Your task to perform on an android device: toggle data saver in the chrome app Image 0: 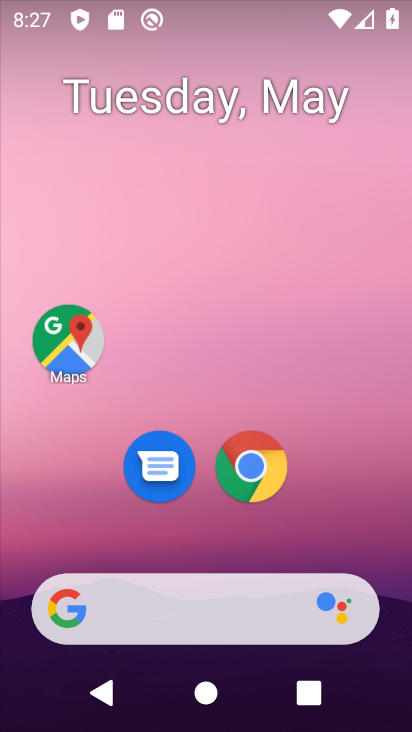
Step 0: press home button
Your task to perform on an android device: toggle data saver in the chrome app Image 1: 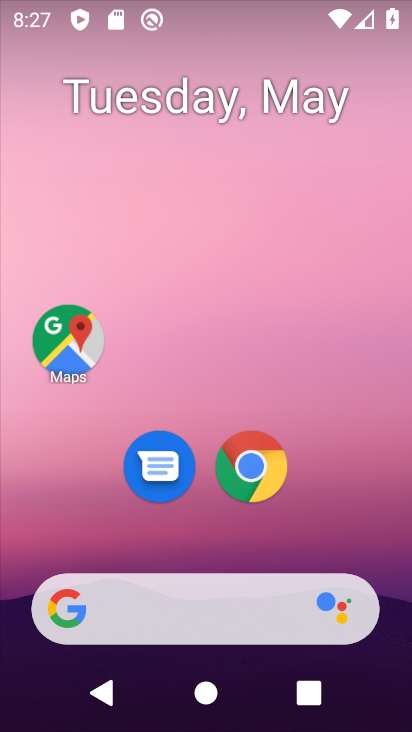
Step 1: click (251, 462)
Your task to perform on an android device: toggle data saver in the chrome app Image 2: 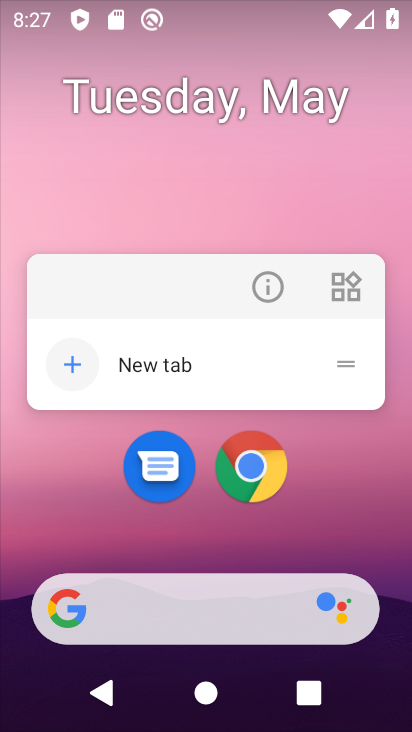
Step 2: click (254, 474)
Your task to perform on an android device: toggle data saver in the chrome app Image 3: 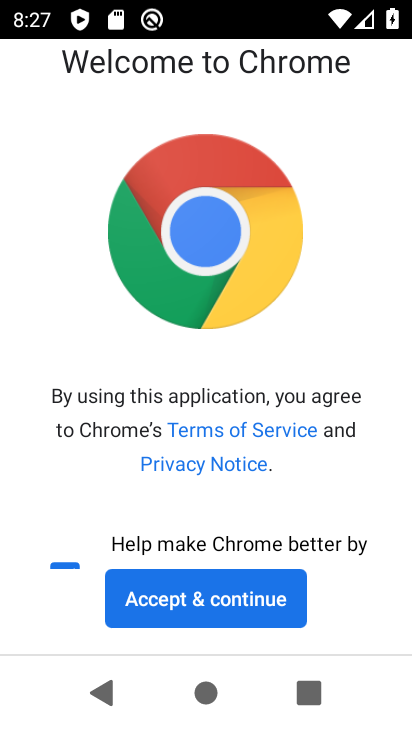
Step 3: click (211, 580)
Your task to perform on an android device: toggle data saver in the chrome app Image 4: 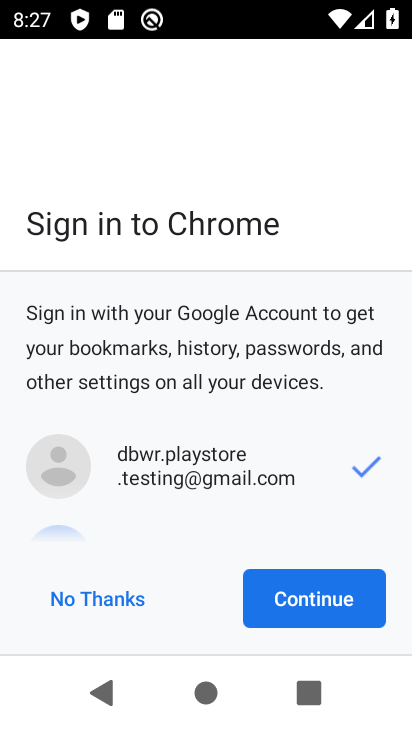
Step 4: click (317, 595)
Your task to perform on an android device: toggle data saver in the chrome app Image 5: 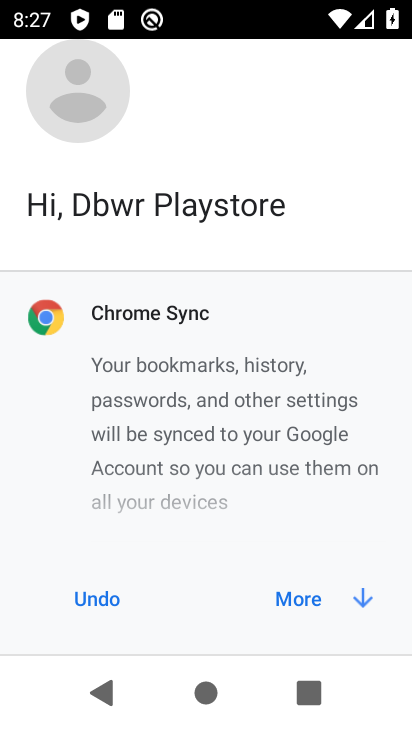
Step 5: click (318, 595)
Your task to perform on an android device: toggle data saver in the chrome app Image 6: 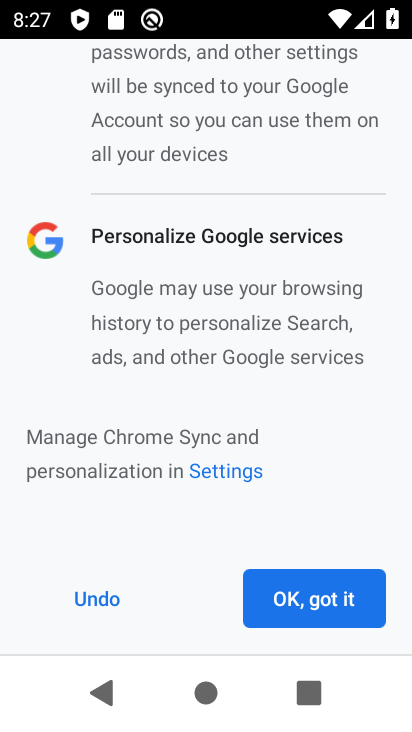
Step 6: click (318, 595)
Your task to perform on an android device: toggle data saver in the chrome app Image 7: 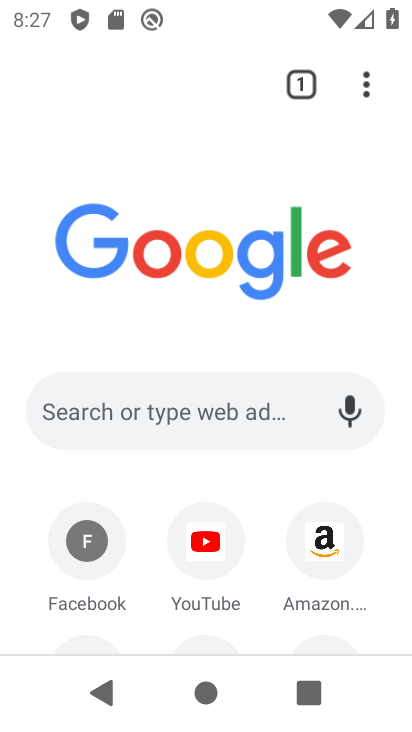
Step 7: click (365, 82)
Your task to perform on an android device: toggle data saver in the chrome app Image 8: 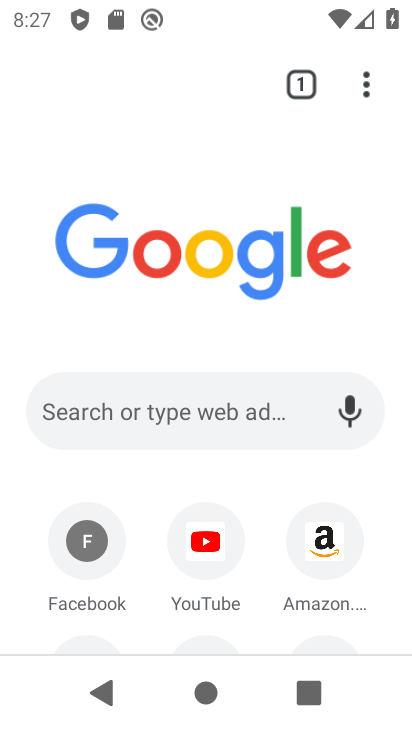
Step 8: click (365, 81)
Your task to perform on an android device: toggle data saver in the chrome app Image 9: 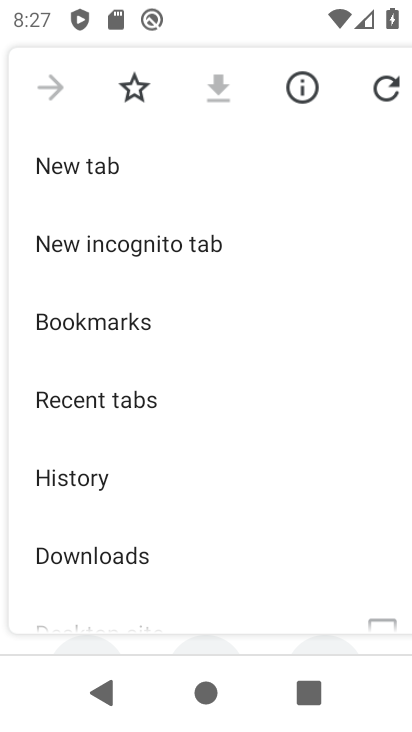
Step 9: drag from (187, 569) to (208, 89)
Your task to perform on an android device: toggle data saver in the chrome app Image 10: 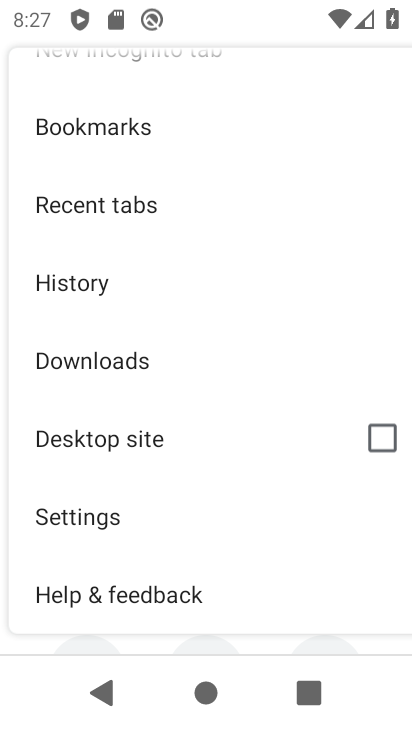
Step 10: click (133, 514)
Your task to perform on an android device: toggle data saver in the chrome app Image 11: 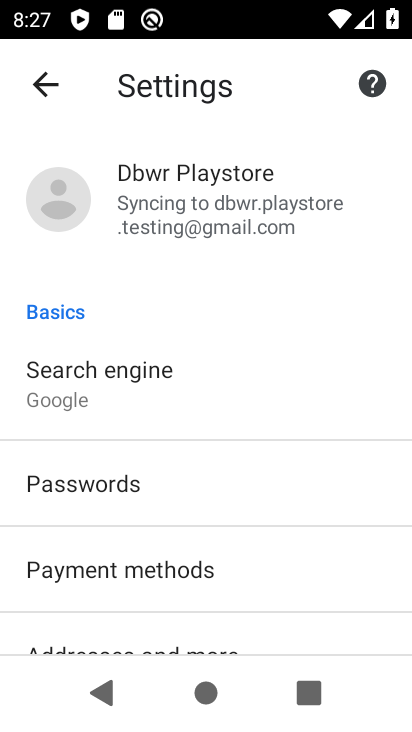
Step 11: drag from (233, 616) to (232, 135)
Your task to perform on an android device: toggle data saver in the chrome app Image 12: 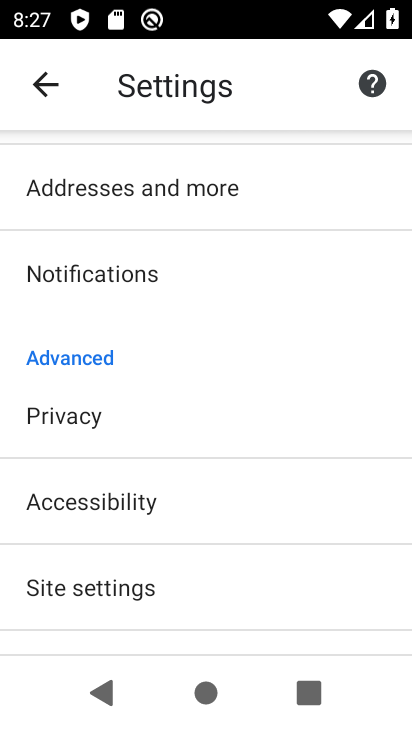
Step 12: drag from (194, 594) to (213, 139)
Your task to perform on an android device: toggle data saver in the chrome app Image 13: 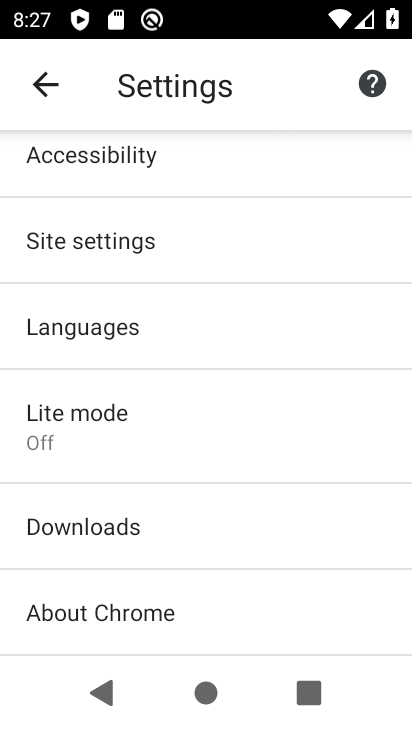
Step 13: click (118, 427)
Your task to perform on an android device: toggle data saver in the chrome app Image 14: 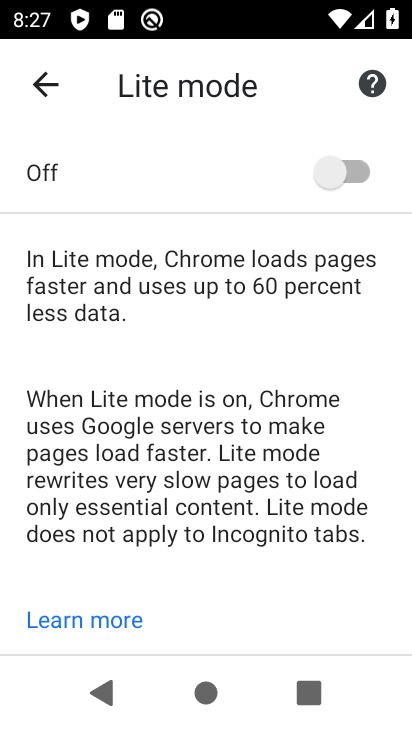
Step 14: click (355, 157)
Your task to perform on an android device: toggle data saver in the chrome app Image 15: 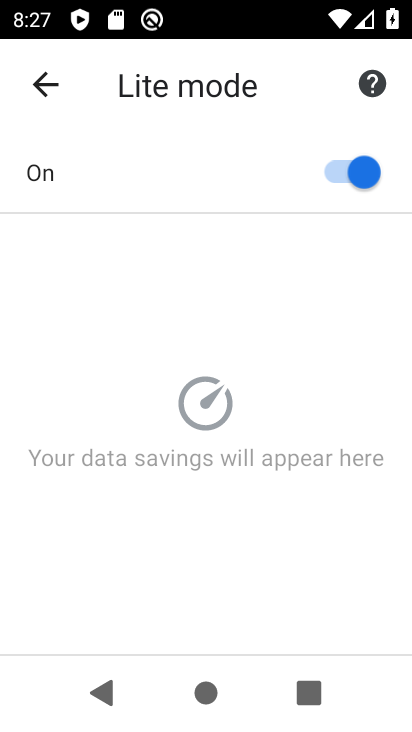
Step 15: task complete